Your task to perform on an android device: toggle priority inbox in the gmail app Image 0: 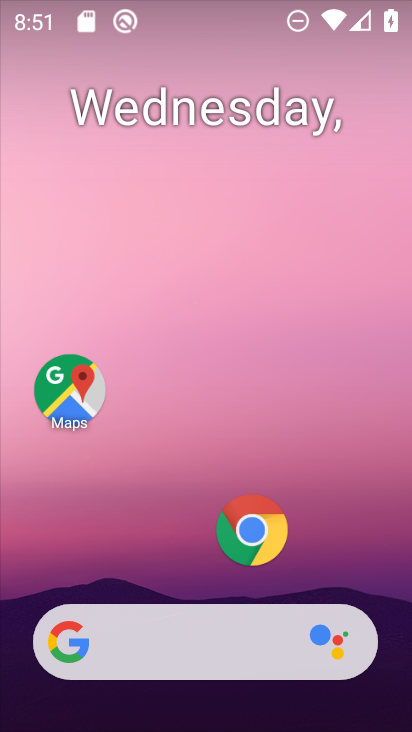
Step 0: drag from (175, 563) to (226, 134)
Your task to perform on an android device: toggle priority inbox in the gmail app Image 1: 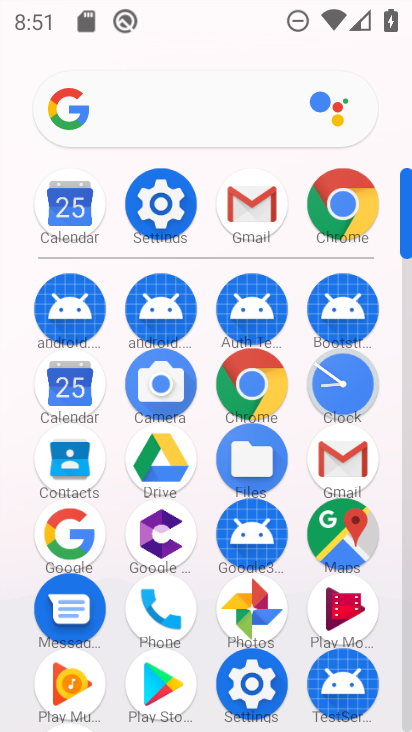
Step 1: click (256, 205)
Your task to perform on an android device: toggle priority inbox in the gmail app Image 2: 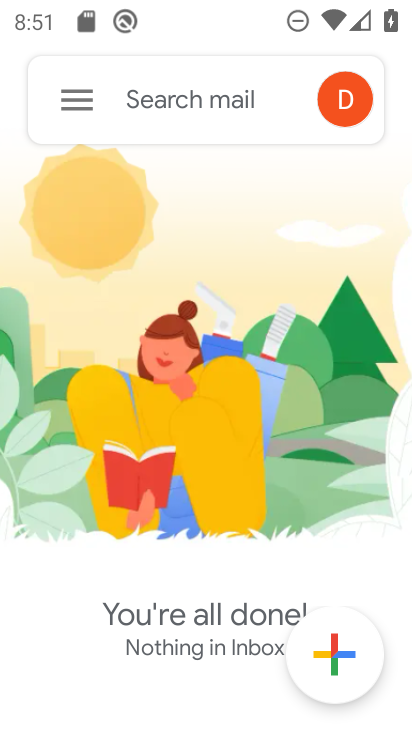
Step 2: click (61, 104)
Your task to perform on an android device: toggle priority inbox in the gmail app Image 3: 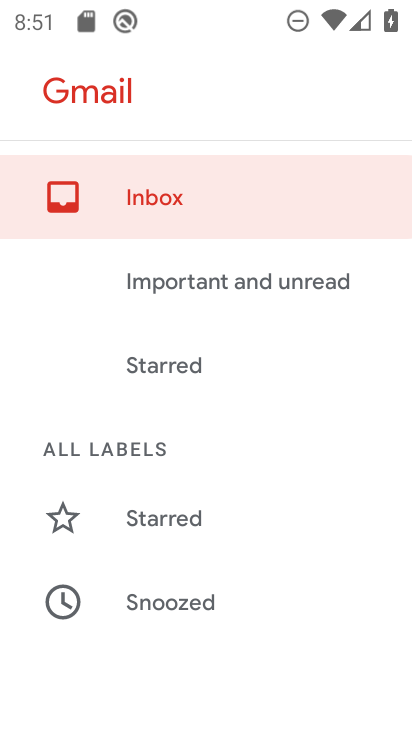
Step 3: drag from (169, 645) to (229, 80)
Your task to perform on an android device: toggle priority inbox in the gmail app Image 4: 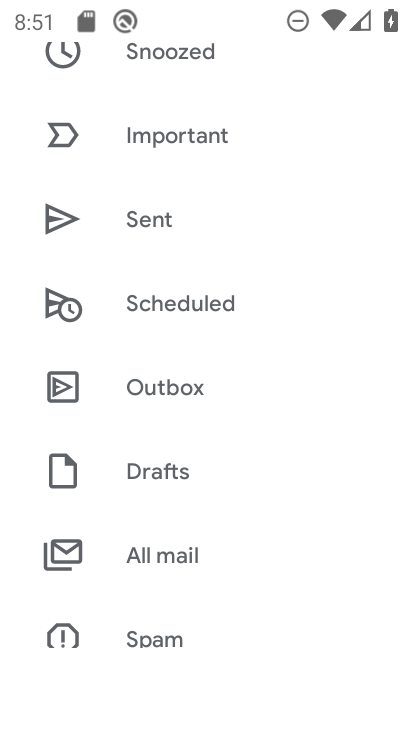
Step 4: drag from (151, 587) to (192, 85)
Your task to perform on an android device: toggle priority inbox in the gmail app Image 5: 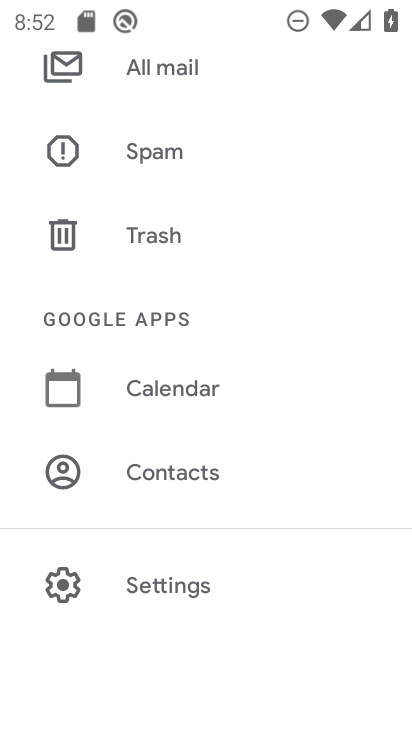
Step 5: click (153, 578)
Your task to perform on an android device: toggle priority inbox in the gmail app Image 6: 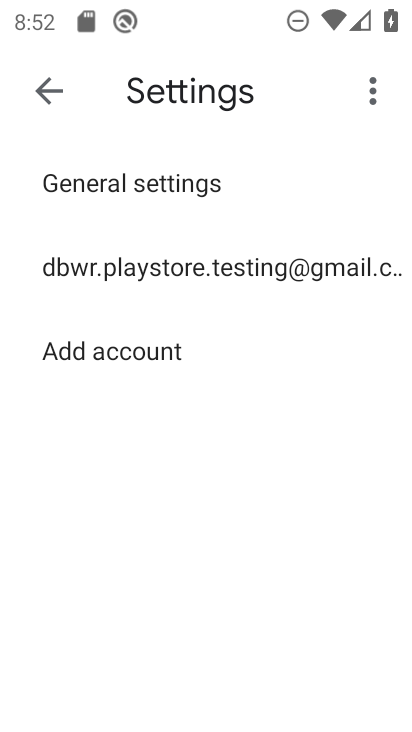
Step 6: click (203, 270)
Your task to perform on an android device: toggle priority inbox in the gmail app Image 7: 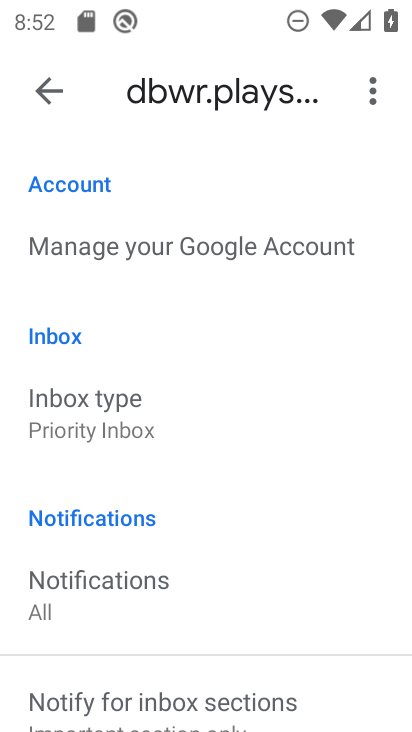
Step 7: click (124, 404)
Your task to perform on an android device: toggle priority inbox in the gmail app Image 8: 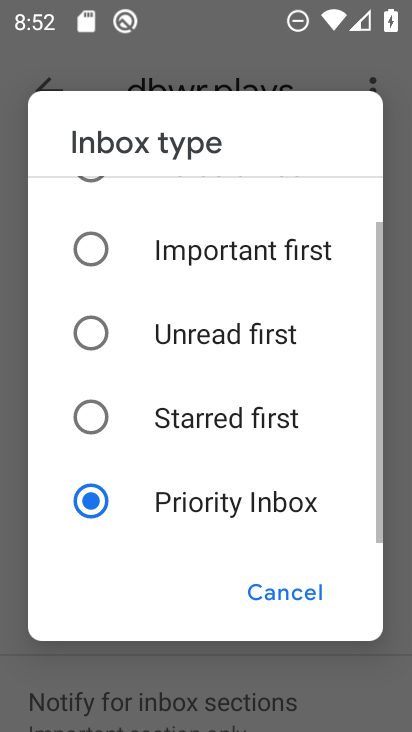
Step 8: click (86, 500)
Your task to perform on an android device: toggle priority inbox in the gmail app Image 9: 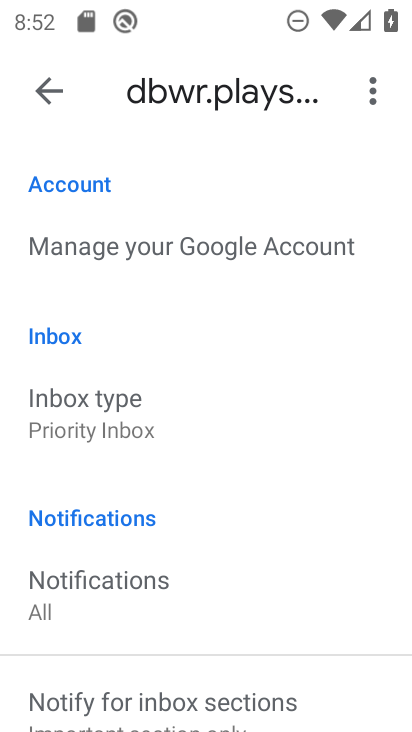
Step 9: task complete